Your task to perform on an android device: Open settings Image 0: 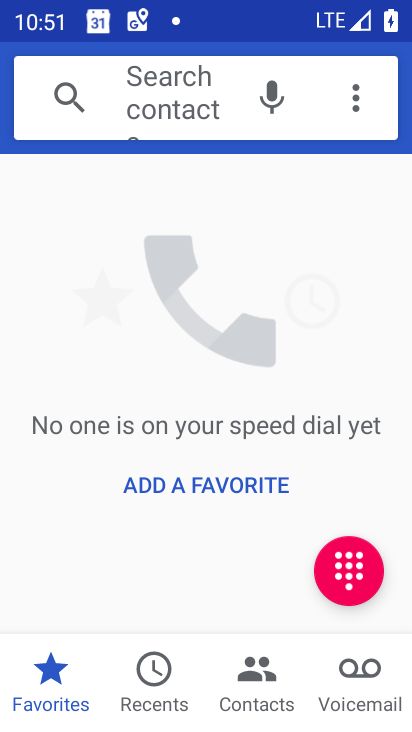
Step 0: press home button
Your task to perform on an android device: Open settings Image 1: 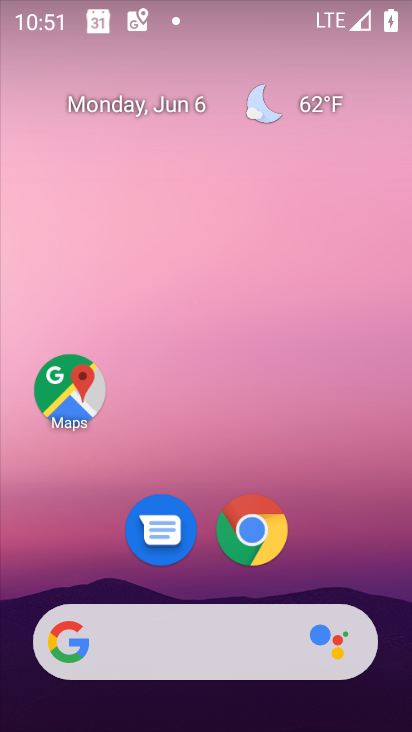
Step 1: drag from (338, 556) to (335, 23)
Your task to perform on an android device: Open settings Image 2: 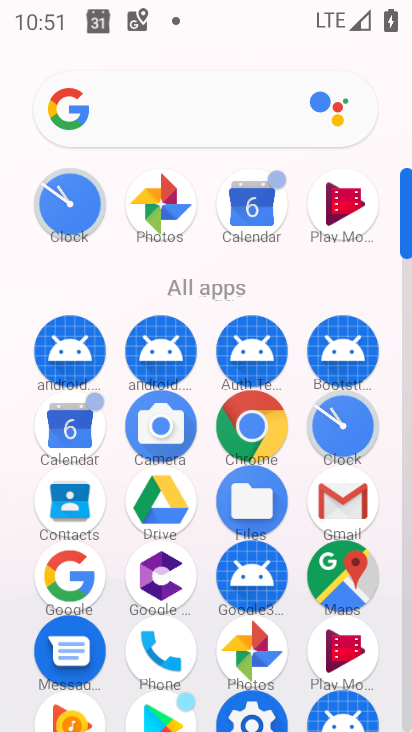
Step 2: drag from (216, 526) to (191, 226)
Your task to perform on an android device: Open settings Image 3: 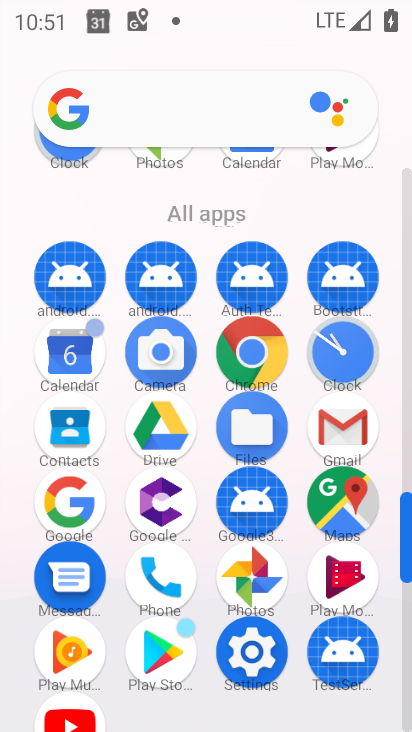
Step 3: click (254, 659)
Your task to perform on an android device: Open settings Image 4: 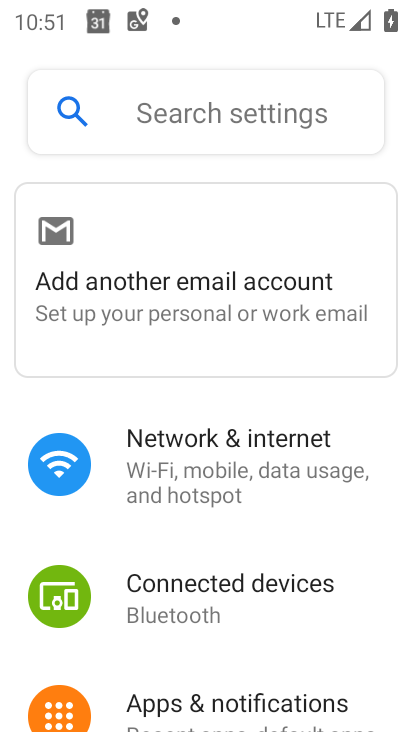
Step 4: task complete